Your task to perform on an android device: empty trash in google photos Image 0: 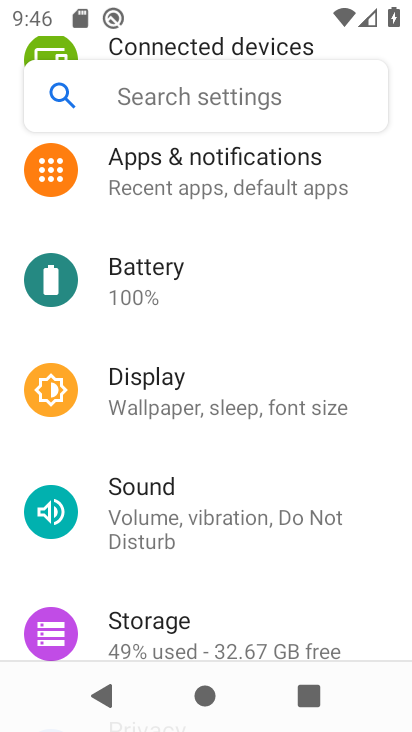
Step 0: press back button
Your task to perform on an android device: empty trash in google photos Image 1: 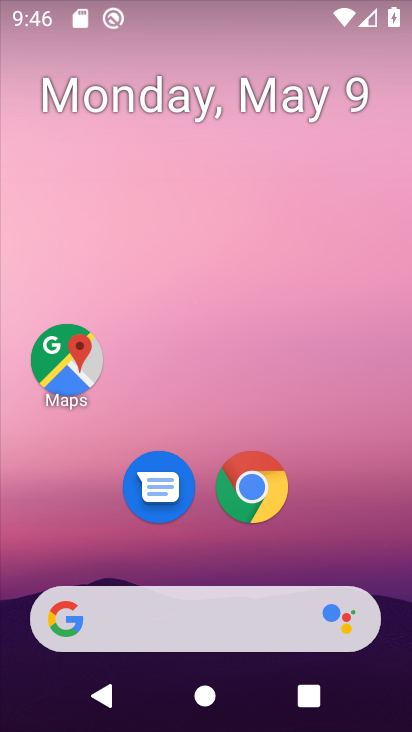
Step 1: drag from (351, 468) to (258, 10)
Your task to perform on an android device: empty trash in google photos Image 2: 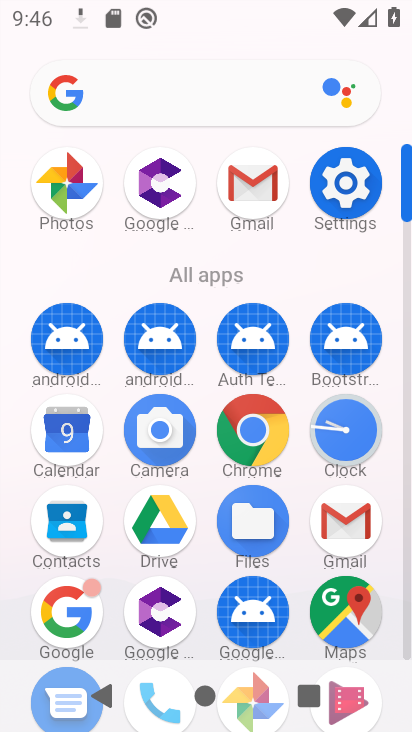
Step 2: drag from (21, 624) to (14, 255)
Your task to perform on an android device: empty trash in google photos Image 3: 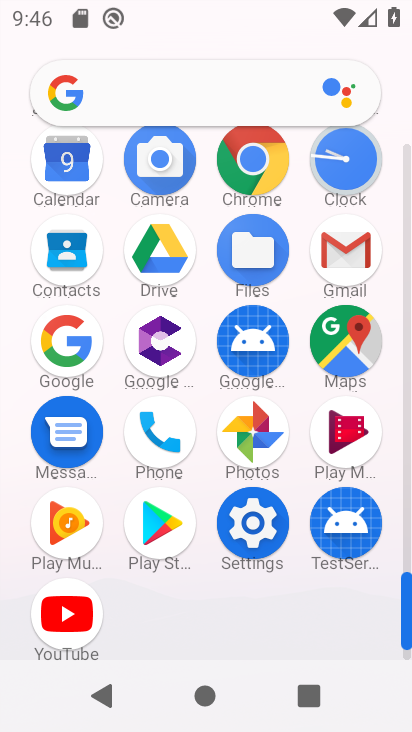
Step 3: click (248, 432)
Your task to perform on an android device: empty trash in google photos Image 4: 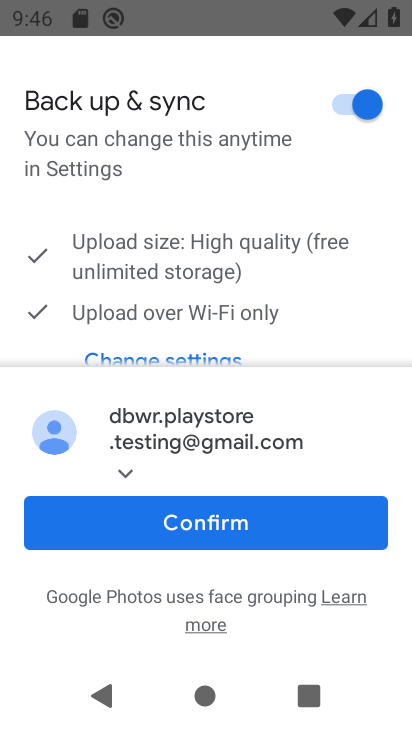
Step 4: click (208, 523)
Your task to perform on an android device: empty trash in google photos Image 5: 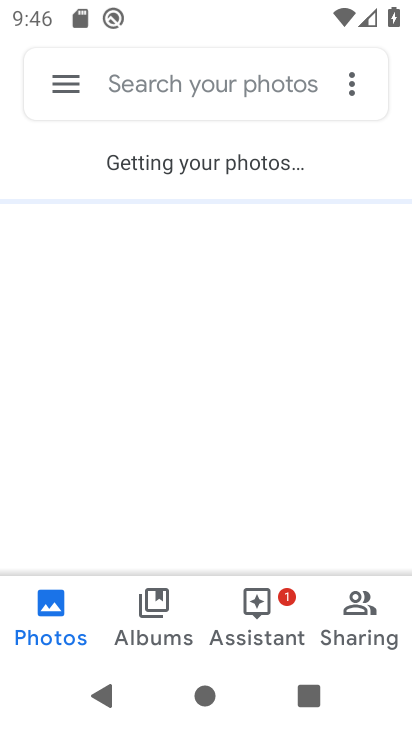
Step 5: click (54, 90)
Your task to perform on an android device: empty trash in google photos Image 6: 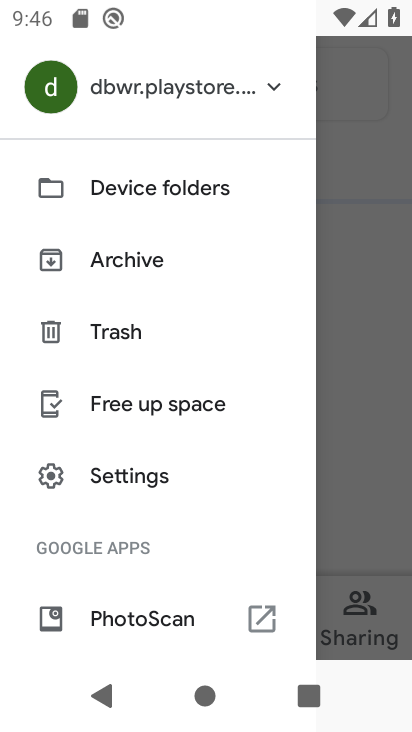
Step 6: click (145, 344)
Your task to perform on an android device: empty trash in google photos Image 7: 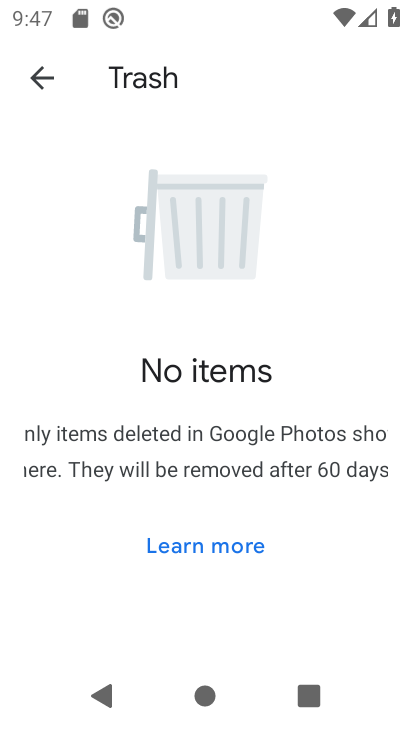
Step 7: task complete